Your task to perform on an android device: turn on priority inbox in the gmail app Image 0: 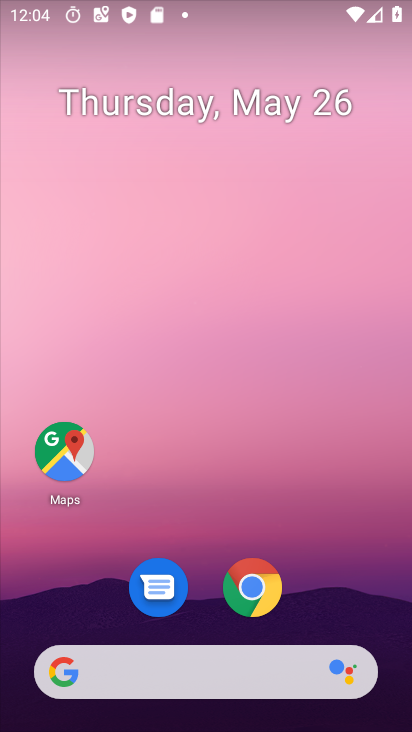
Step 0: drag from (259, 659) to (289, 99)
Your task to perform on an android device: turn on priority inbox in the gmail app Image 1: 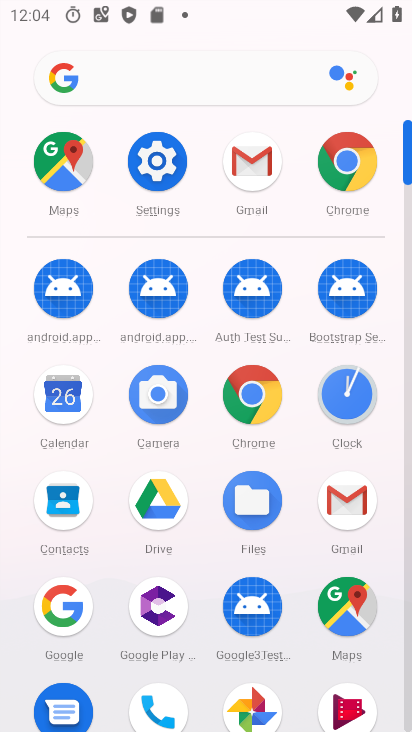
Step 1: click (246, 169)
Your task to perform on an android device: turn on priority inbox in the gmail app Image 2: 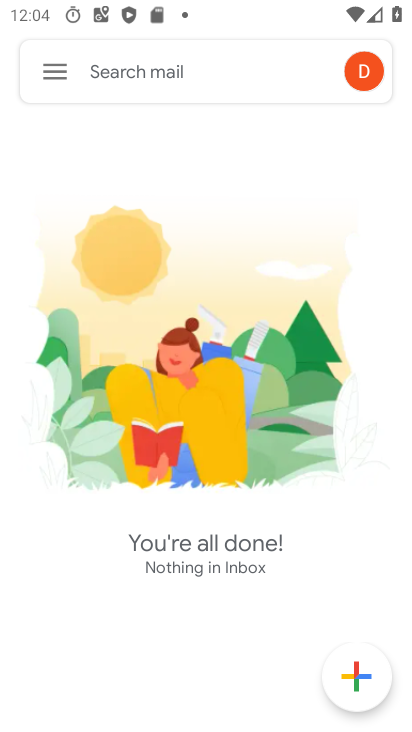
Step 2: click (85, 64)
Your task to perform on an android device: turn on priority inbox in the gmail app Image 3: 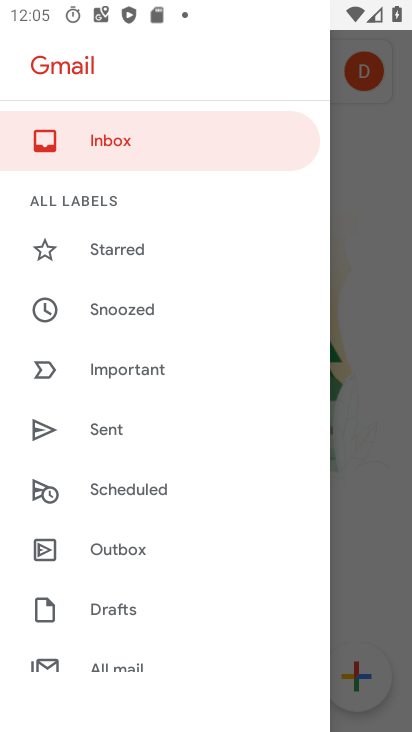
Step 3: drag from (117, 560) to (136, 237)
Your task to perform on an android device: turn on priority inbox in the gmail app Image 4: 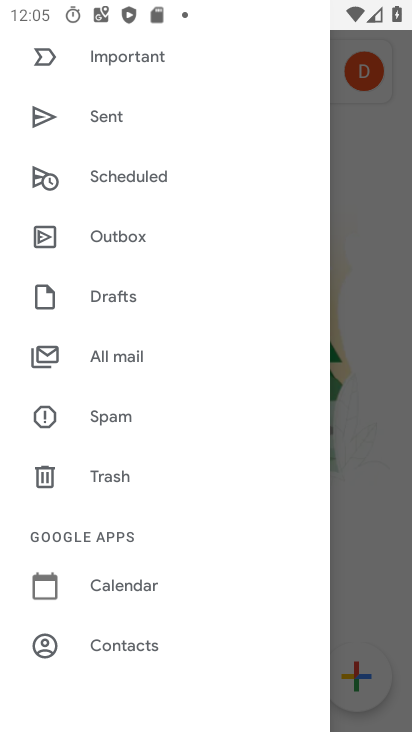
Step 4: drag from (138, 632) to (134, 521)
Your task to perform on an android device: turn on priority inbox in the gmail app Image 5: 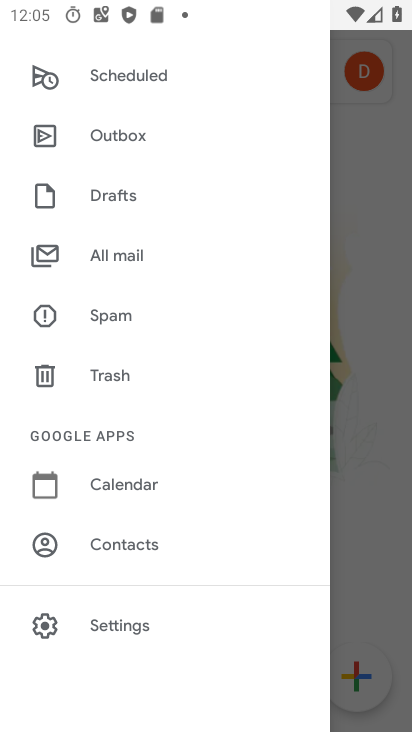
Step 5: click (144, 626)
Your task to perform on an android device: turn on priority inbox in the gmail app Image 6: 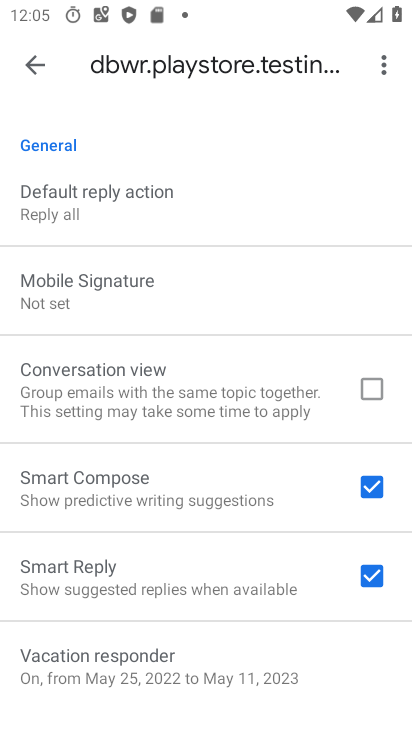
Step 6: drag from (110, 268) to (261, 693)
Your task to perform on an android device: turn on priority inbox in the gmail app Image 7: 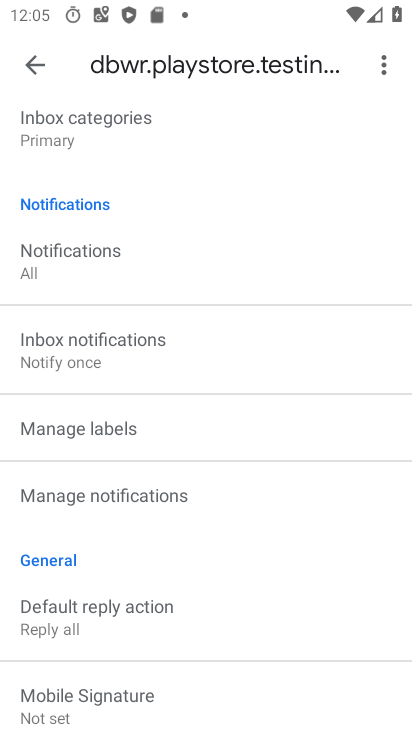
Step 7: drag from (134, 228) to (153, 446)
Your task to perform on an android device: turn on priority inbox in the gmail app Image 8: 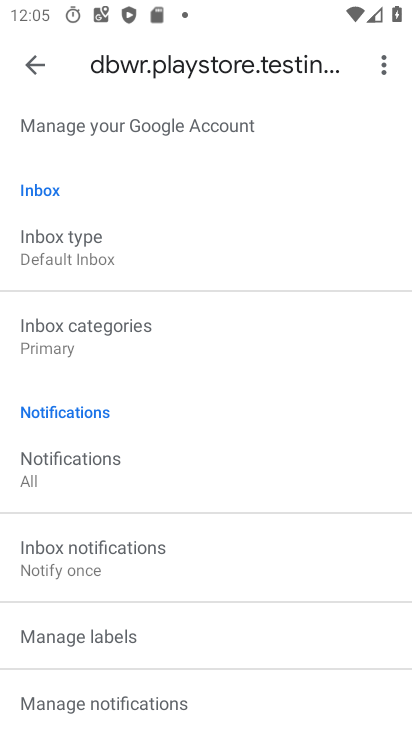
Step 8: click (83, 243)
Your task to perform on an android device: turn on priority inbox in the gmail app Image 9: 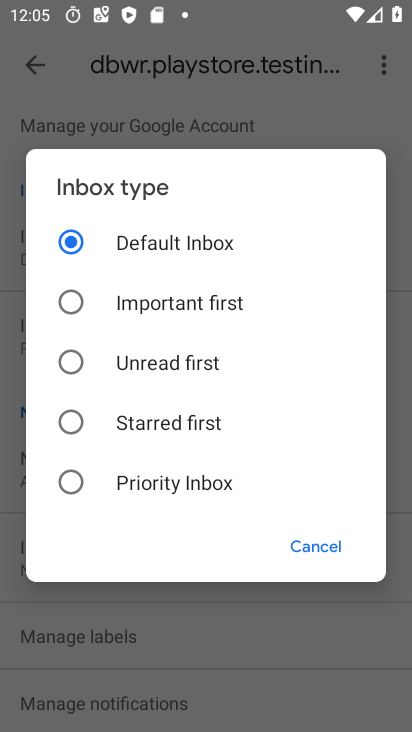
Step 9: click (158, 502)
Your task to perform on an android device: turn on priority inbox in the gmail app Image 10: 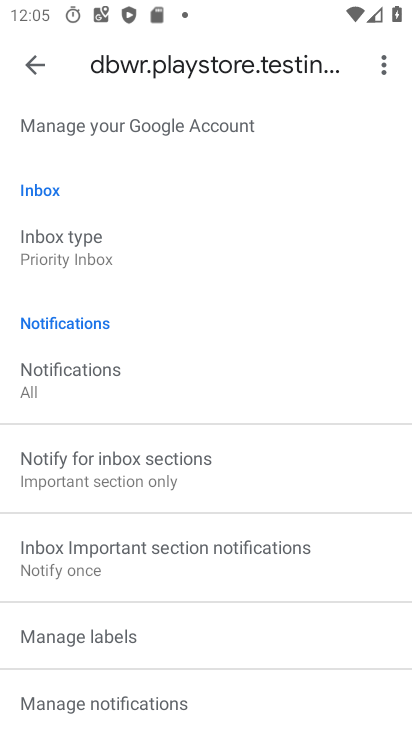
Step 10: task complete